Your task to perform on an android device: Open ESPN.com Image 0: 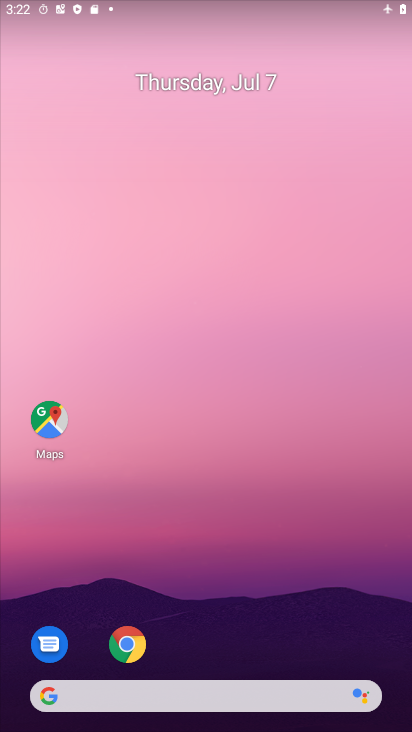
Step 0: drag from (235, 661) to (160, 39)
Your task to perform on an android device: Open ESPN.com Image 1: 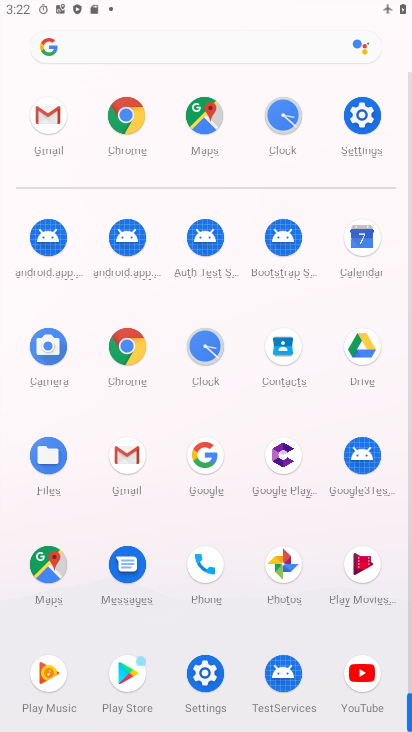
Step 1: click (124, 123)
Your task to perform on an android device: Open ESPN.com Image 2: 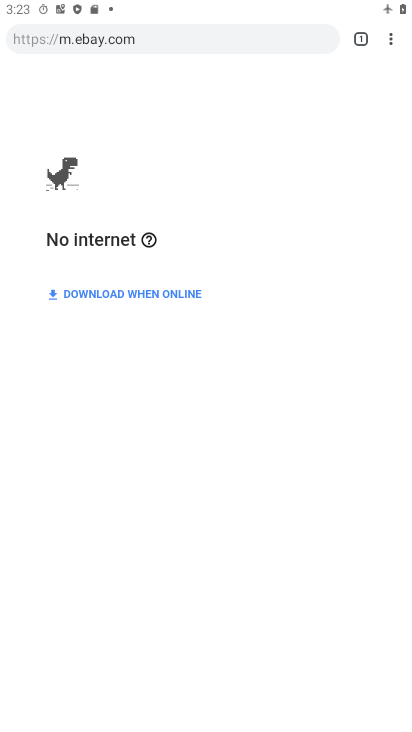
Step 2: click (359, 44)
Your task to perform on an android device: Open ESPN.com Image 3: 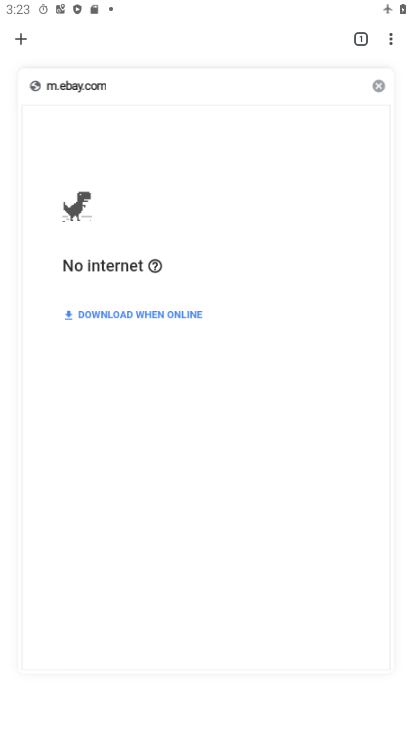
Step 3: click (18, 43)
Your task to perform on an android device: Open ESPN.com Image 4: 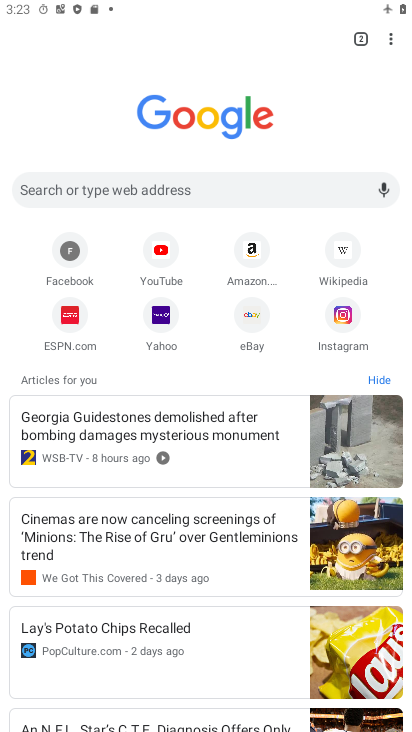
Step 4: click (52, 306)
Your task to perform on an android device: Open ESPN.com Image 5: 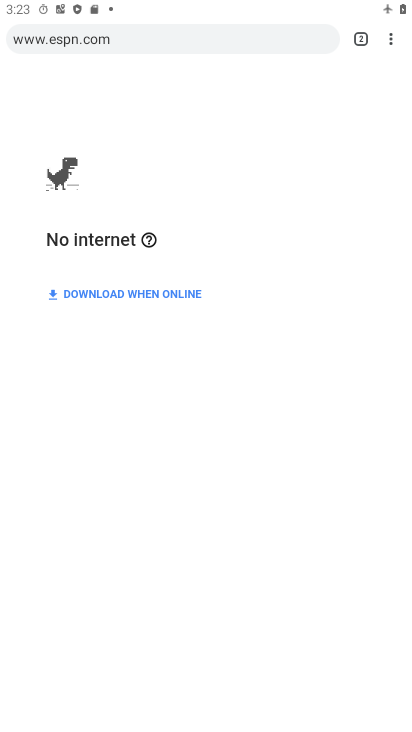
Step 5: task complete